Your task to perform on an android device: What's on my calendar tomorrow? Image 0: 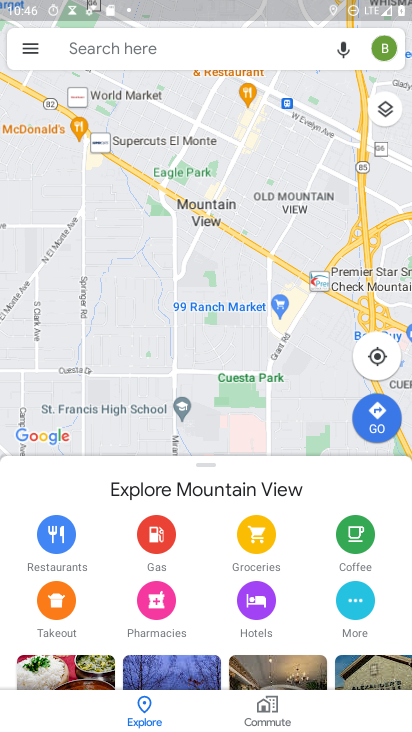
Step 0: task complete